Your task to perform on an android device: make emails show in primary in the gmail app Image 0: 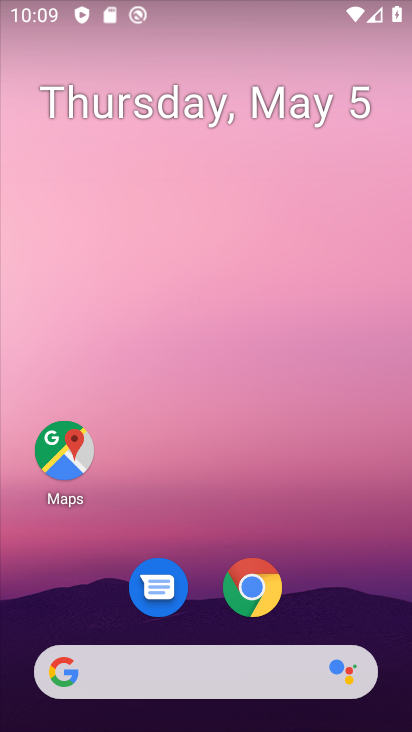
Step 0: drag from (317, 570) to (245, 34)
Your task to perform on an android device: make emails show in primary in the gmail app Image 1: 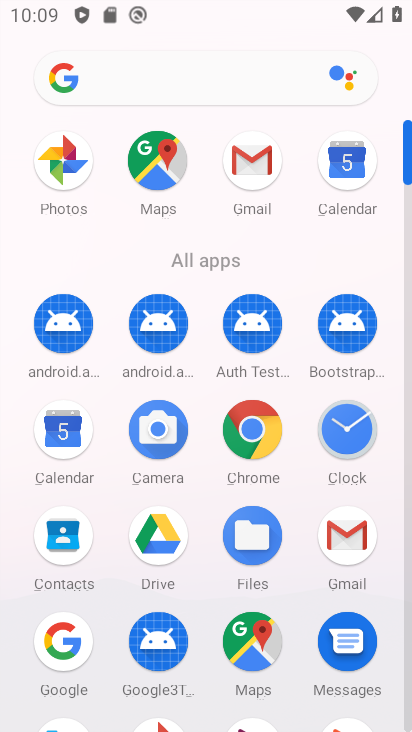
Step 1: drag from (0, 538) to (9, 215)
Your task to perform on an android device: make emails show in primary in the gmail app Image 2: 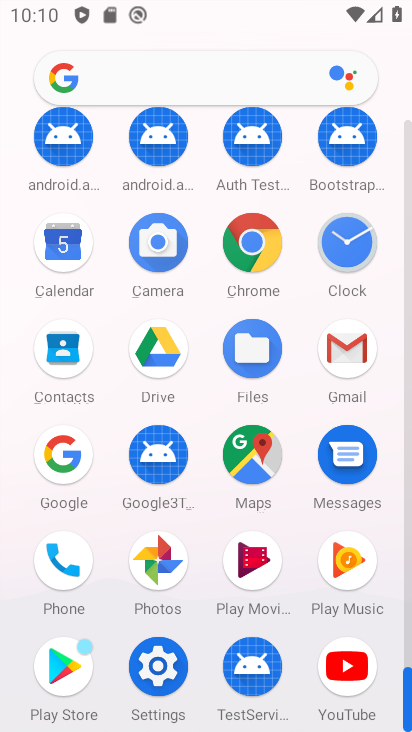
Step 2: click (351, 342)
Your task to perform on an android device: make emails show in primary in the gmail app Image 3: 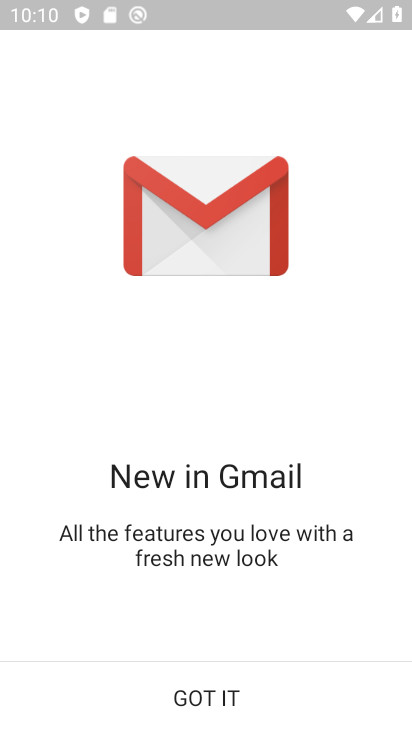
Step 3: click (211, 675)
Your task to perform on an android device: make emails show in primary in the gmail app Image 4: 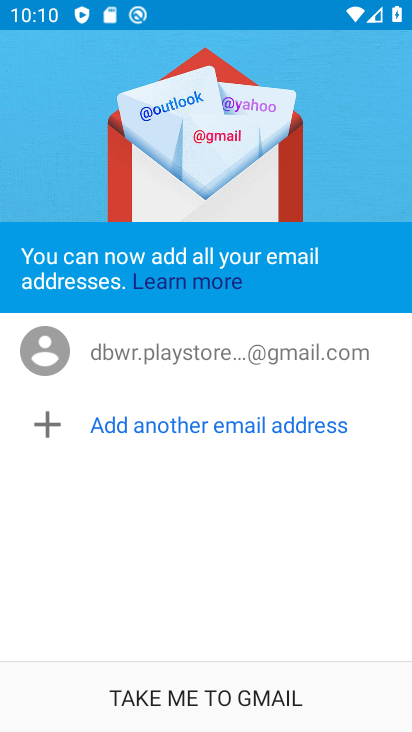
Step 4: click (158, 698)
Your task to perform on an android device: make emails show in primary in the gmail app Image 5: 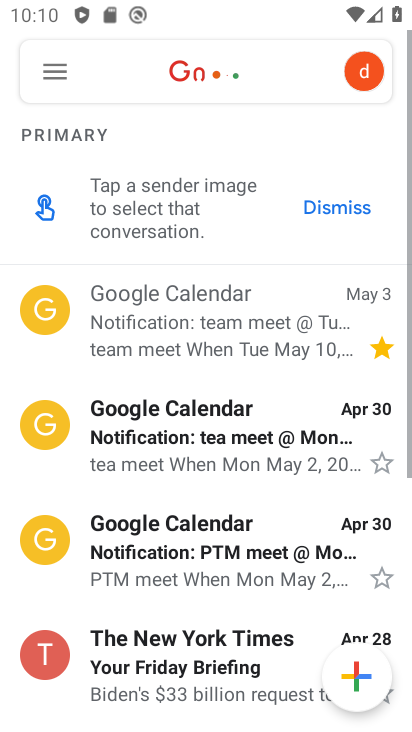
Step 5: click (54, 72)
Your task to perform on an android device: make emails show in primary in the gmail app Image 6: 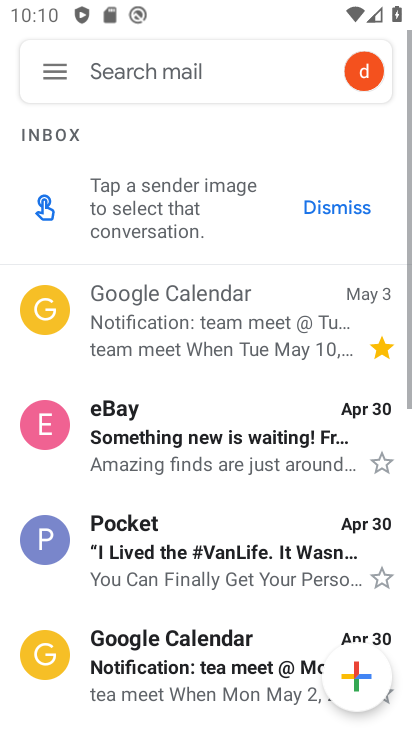
Step 6: click (54, 72)
Your task to perform on an android device: make emails show in primary in the gmail app Image 7: 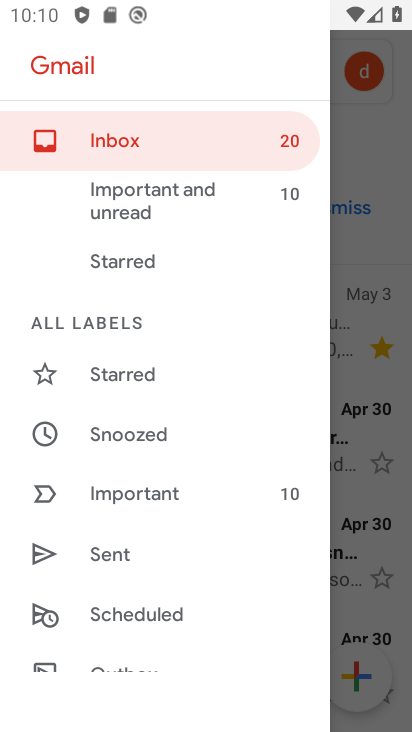
Step 7: drag from (163, 572) to (173, 92)
Your task to perform on an android device: make emails show in primary in the gmail app Image 8: 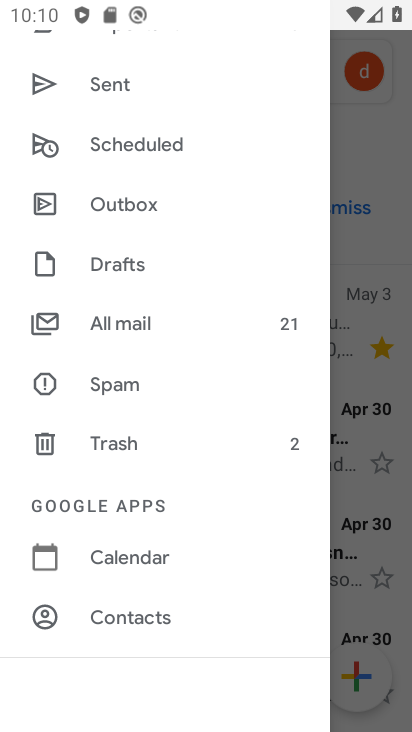
Step 8: drag from (165, 541) to (168, 147)
Your task to perform on an android device: make emails show in primary in the gmail app Image 9: 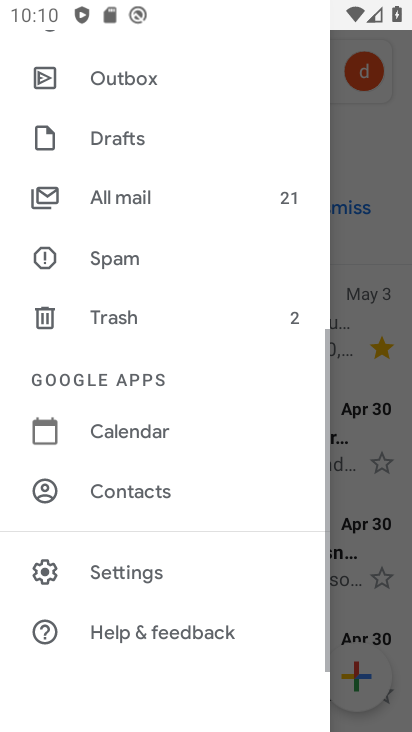
Step 9: click (126, 568)
Your task to perform on an android device: make emails show in primary in the gmail app Image 10: 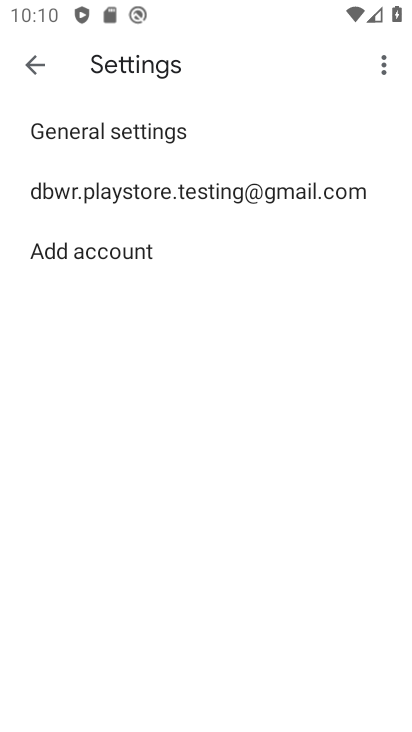
Step 10: click (169, 197)
Your task to perform on an android device: make emails show in primary in the gmail app Image 11: 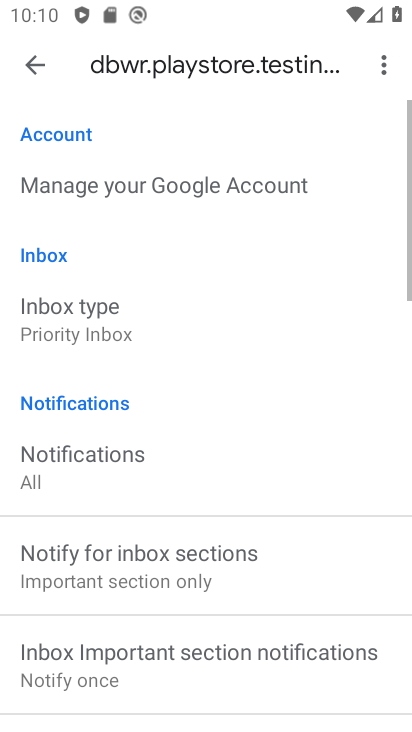
Step 11: click (108, 323)
Your task to perform on an android device: make emails show in primary in the gmail app Image 12: 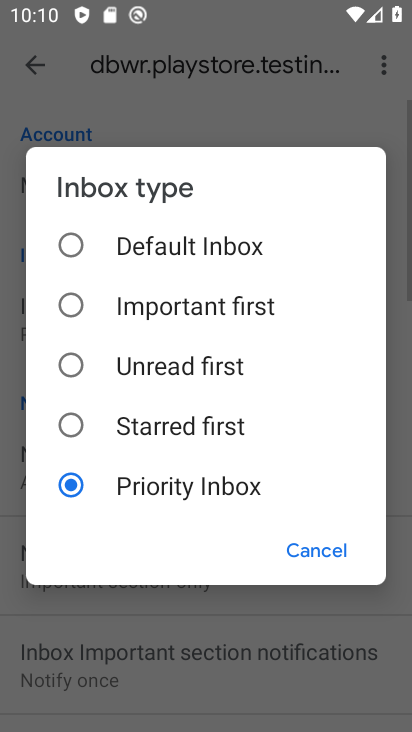
Step 12: click (147, 249)
Your task to perform on an android device: make emails show in primary in the gmail app Image 13: 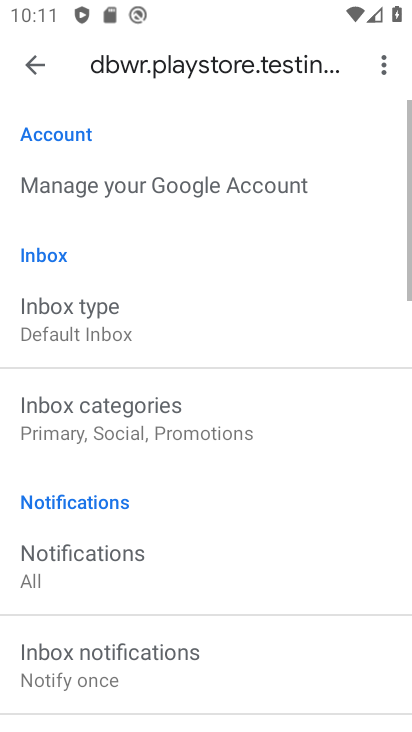
Step 13: click (173, 413)
Your task to perform on an android device: make emails show in primary in the gmail app Image 14: 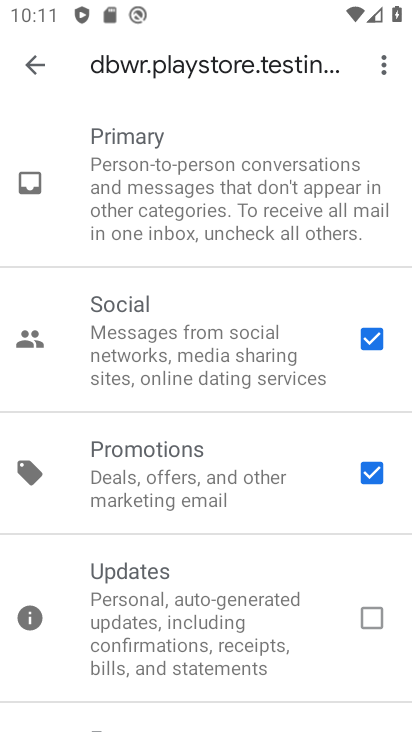
Step 14: click (371, 330)
Your task to perform on an android device: make emails show in primary in the gmail app Image 15: 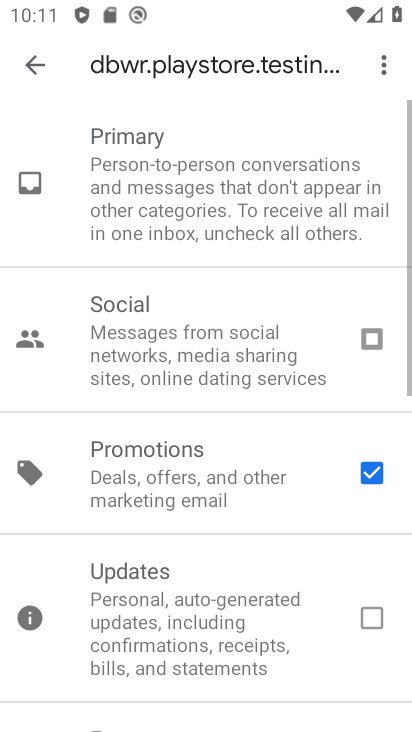
Step 15: click (378, 483)
Your task to perform on an android device: make emails show in primary in the gmail app Image 16: 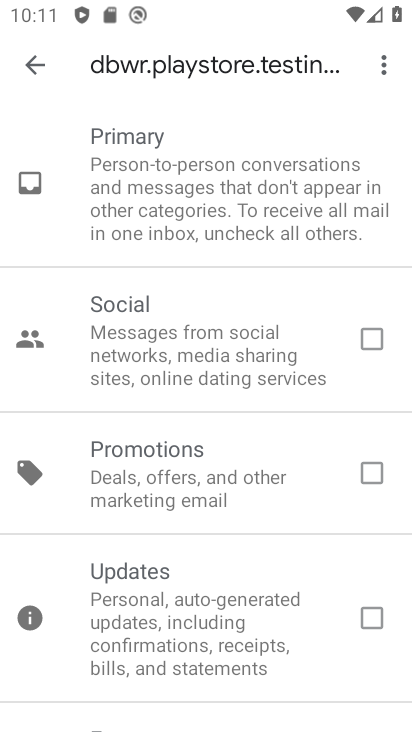
Step 16: click (32, 67)
Your task to perform on an android device: make emails show in primary in the gmail app Image 17: 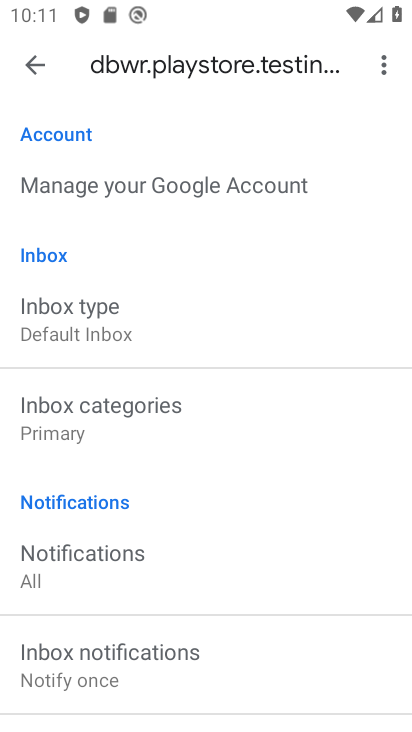
Step 17: task complete